Your task to perform on an android device: turn on airplane mode Image 0: 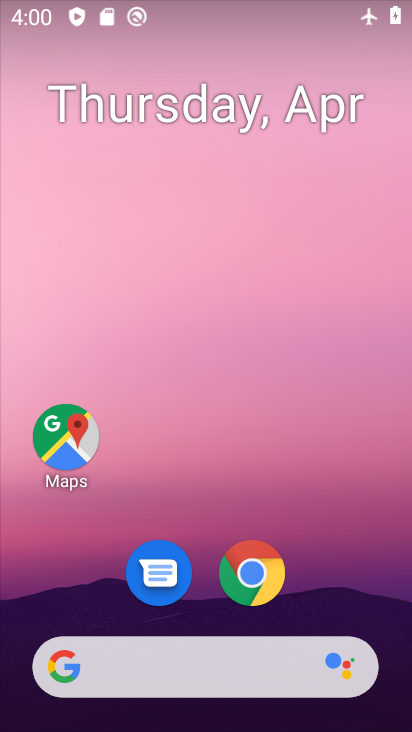
Step 0: drag from (352, 607) to (291, 65)
Your task to perform on an android device: turn on airplane mode Image 1: 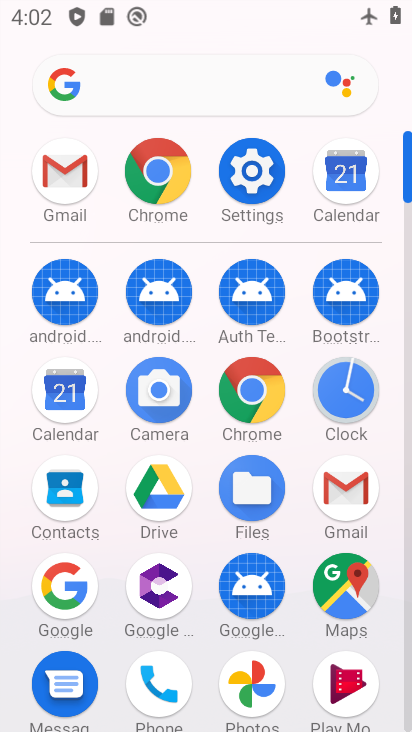
Step 1: task complete